Your task to perform on an android device: Open the map Image 0: 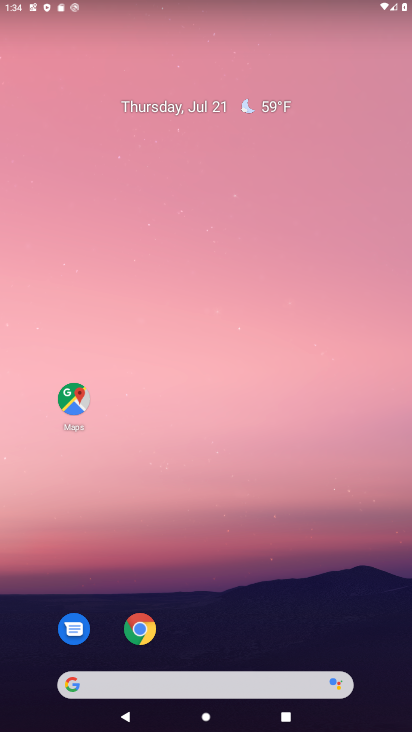
Step 0: click (73, 399)
Your task to perform on an android device: Open the map Image 1: 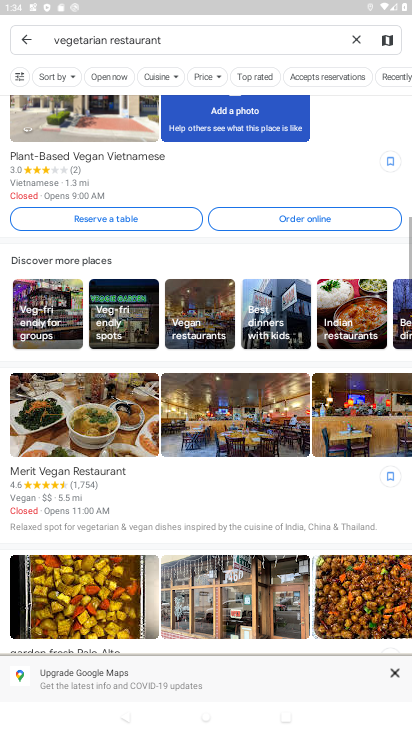
Step 1: click (351, 38)
Your task to perform on an android device: Open the map Image 2: 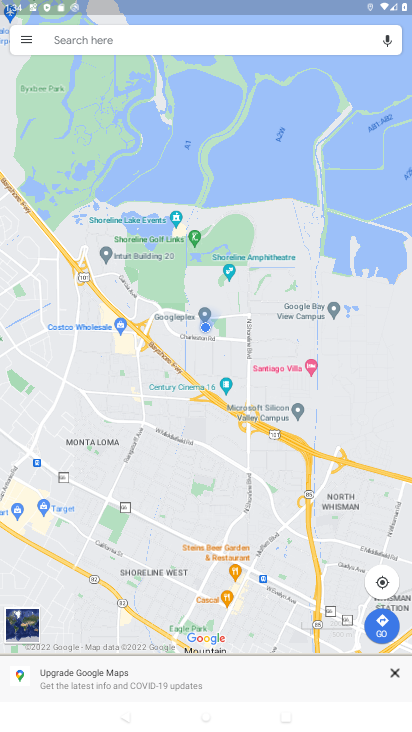
Step 2: task complete